Your task to perform on an android device: change the clock display to show seconds Image 0: 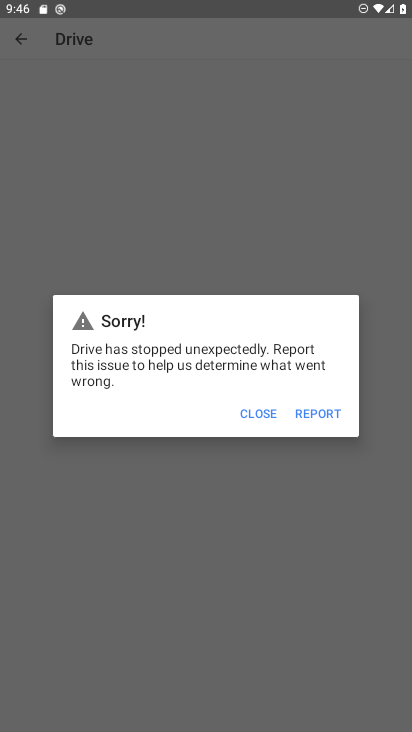
Step 0: press home button
Your task to perform on an android device: change the clock display to show seconds Image 1: 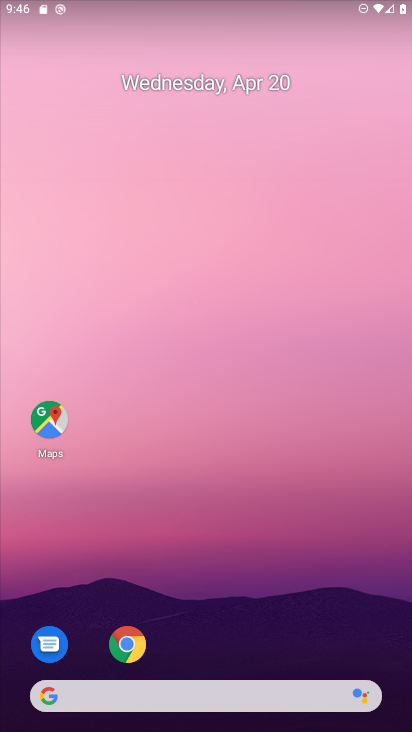
Step 1: drag from (264, 506) to (181, 67)
Your task to perform on an android device: change the clock display to show seconds Image 2: 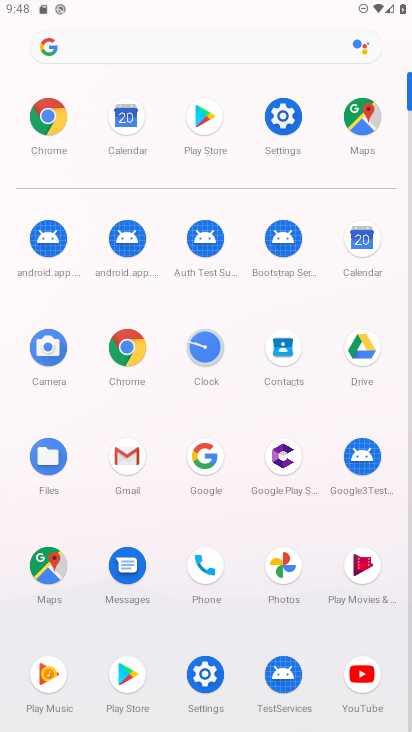
Step 2: click (206, 349)
Your task to perform on an android device: change the clock display to show seconds Image 3: 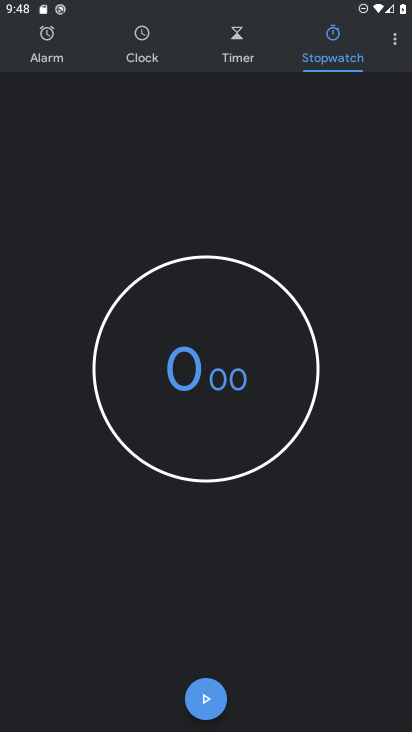
Step 3: click (389, 47)
Your task to perform on an android device: change the clock display to show seconds Image 4: 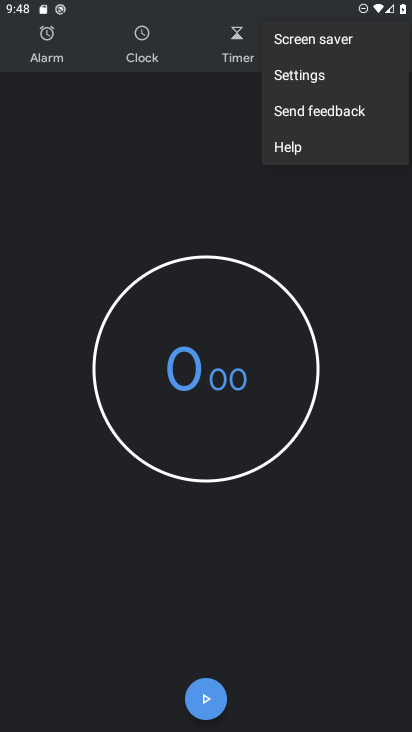
Step 4: click (307, 75)
Your task to perform on an android device: change the clock display to show seconds Image 5: 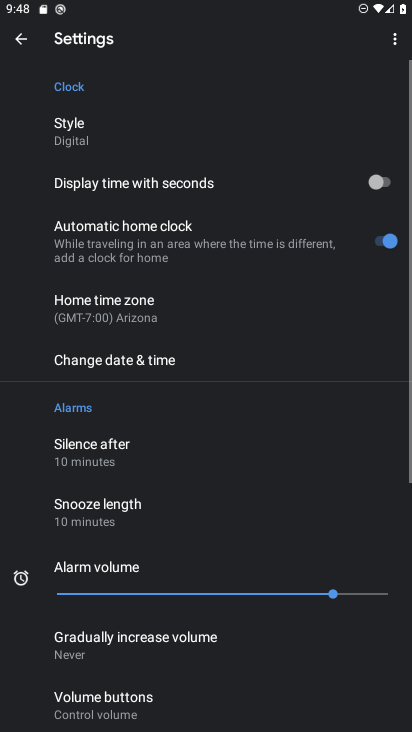
Step 5: click (320, 176)
Your task to perform on an android device: change the clock display to show seconds Image 6: 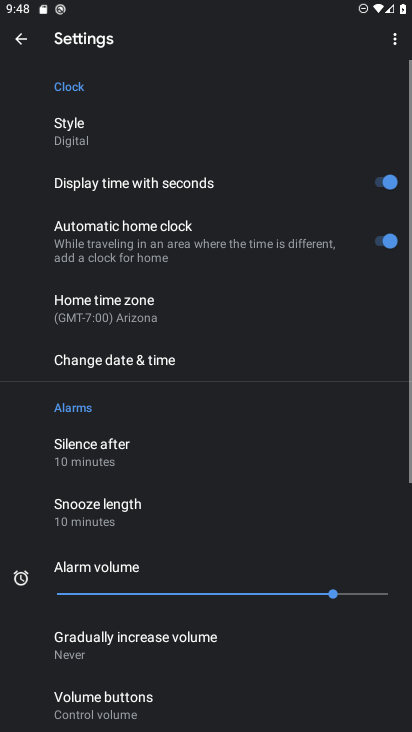
Step 6: task complete